Your task to perform on an android device: Add "asus rog" to the cart on amazon, then select checkout. Image 0: 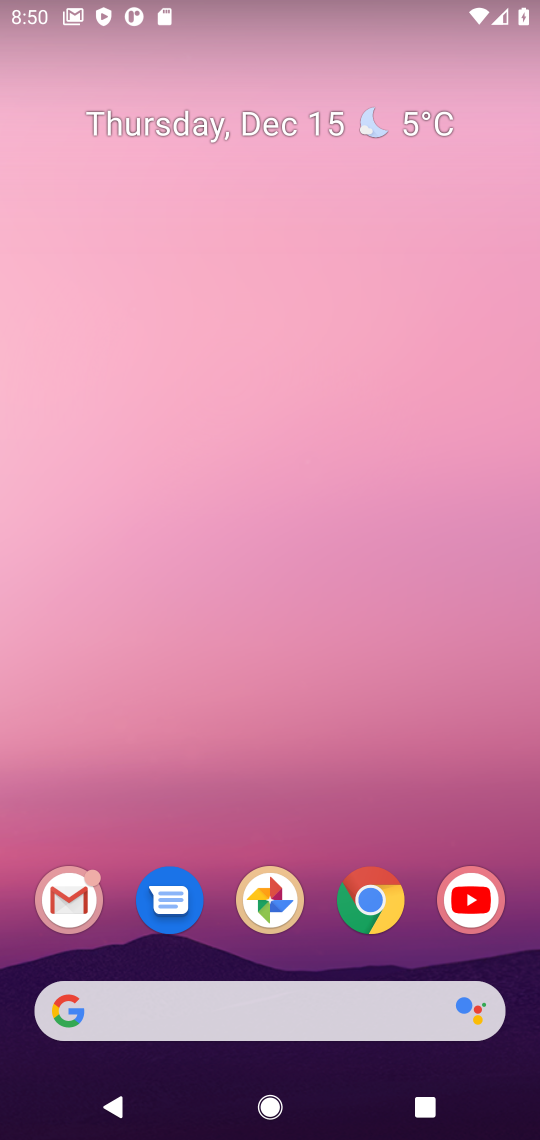
Step 0: click (363, 898)
Your task to perform on an android device: Add "asus rog" to the cart on amazon, then select checkout. Image 1: 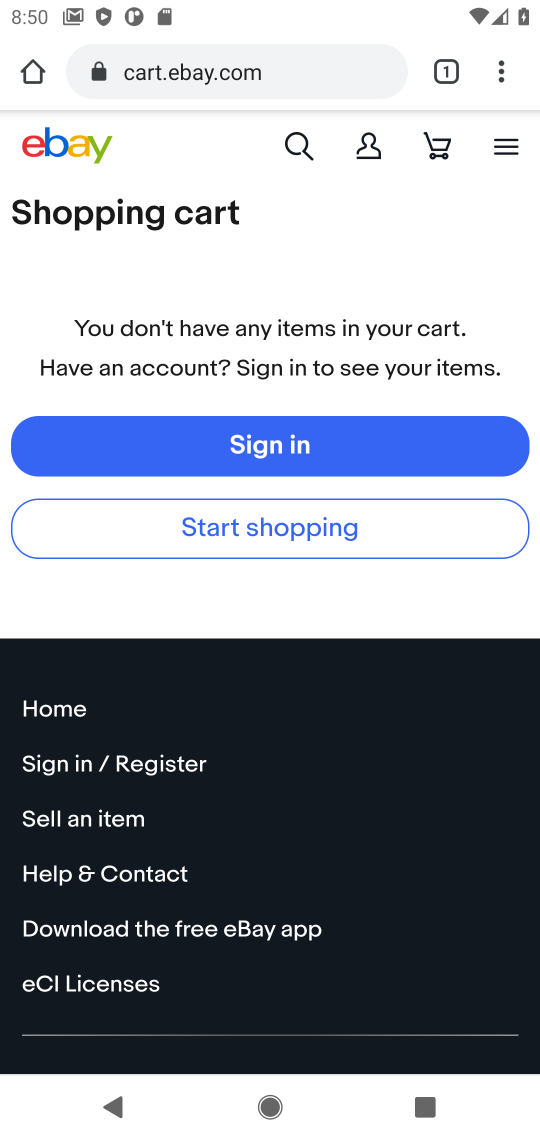
Step 1: click (244, 68)
Your task to perform on an android device: Add "asus rog" to the cart on amazon, then select checkout. Image 2: 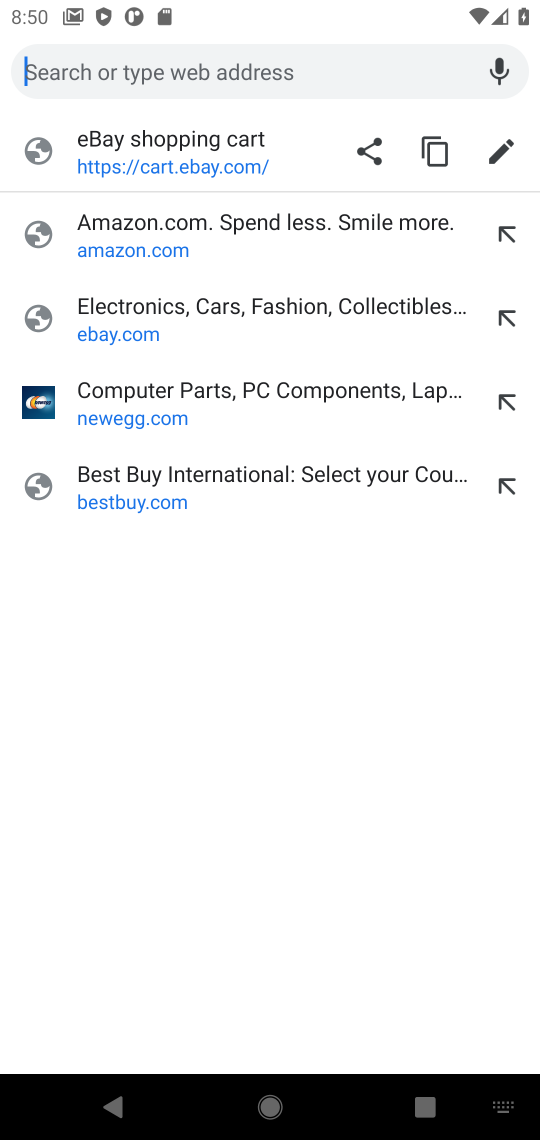
Step 2: type "amazon"
Your task to perform on an android device: Add "asus rog" to the cart on amazon, then select checkout. Image 3: 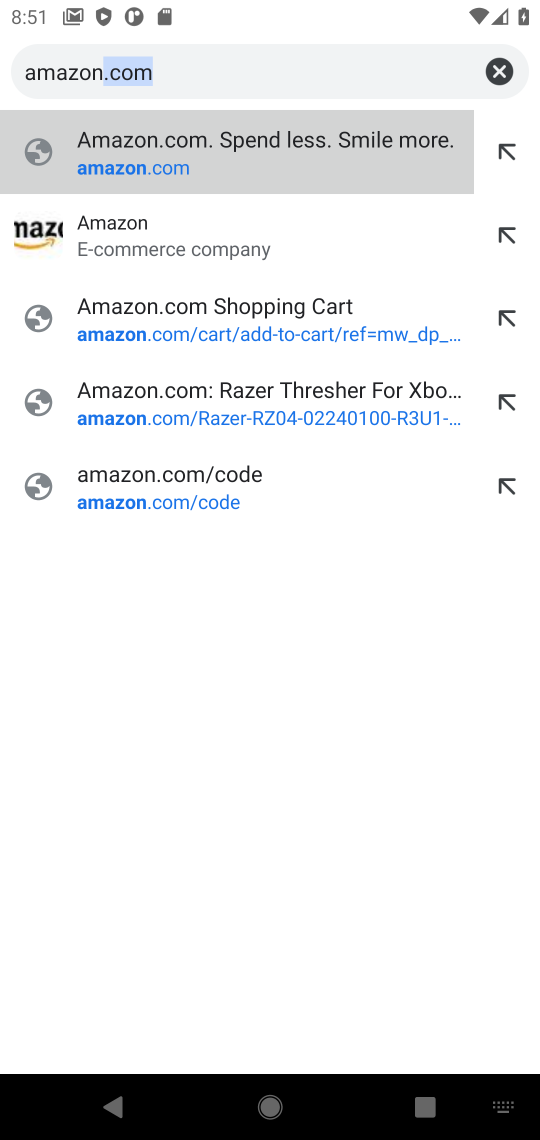
Step 3: click (166, 149)
Your task to perform on an android device: Add "asus rog" to the cart on amazon, then select checkout. Image 4: 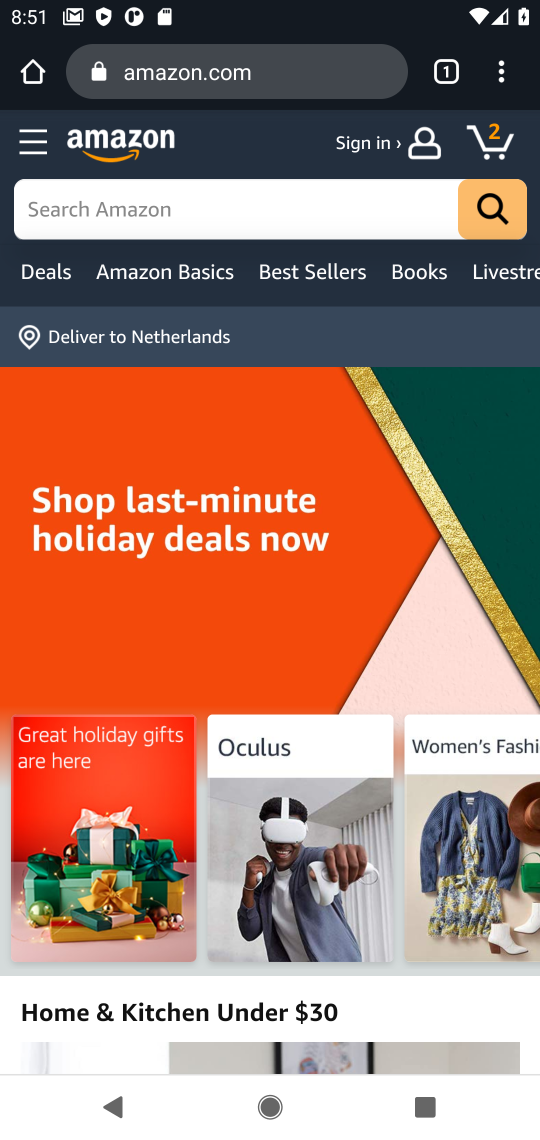
Step 4: click (151, 231)
Your task to perform on an android device: Add "asus rog" to the cart on amazon, then select checkout. Image 5: 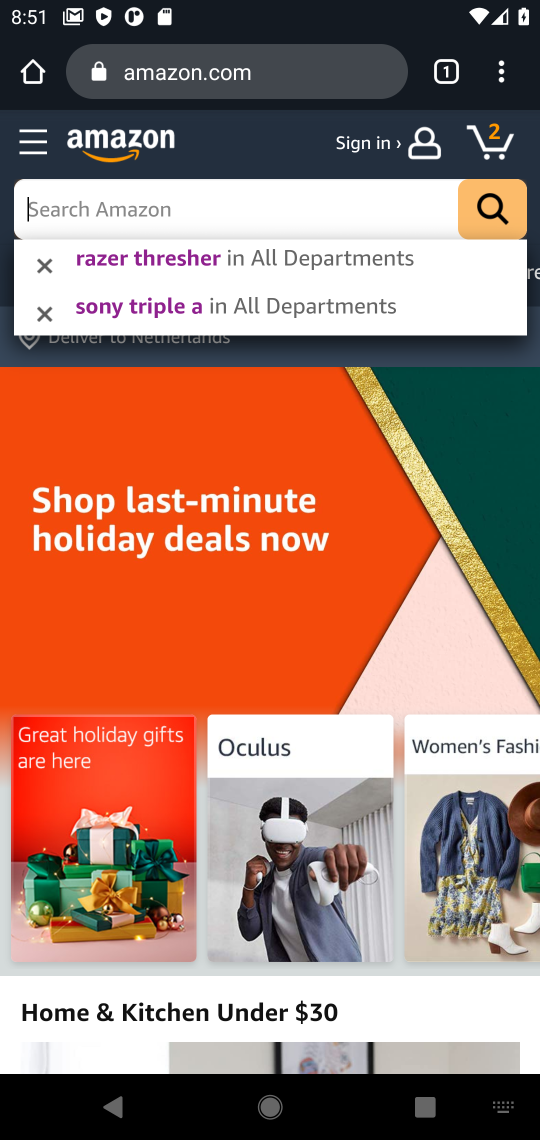
Step 5: type "asus rog"
Your task to perform on an android device: Add "asus rog" to the cart on amazon, then select checkout. Image 6: 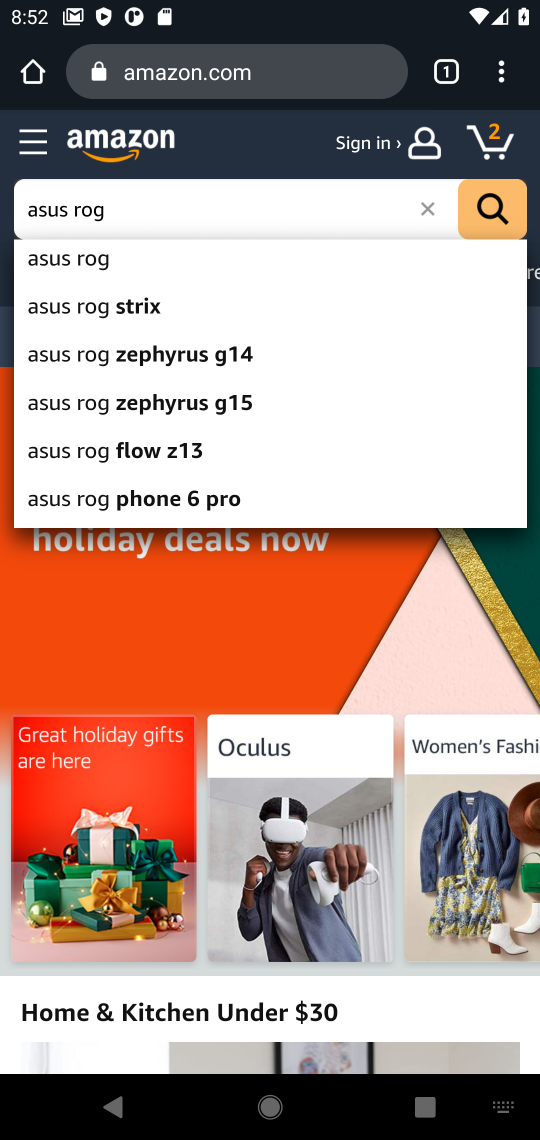
Step 6: press enter
Your task to perform on an android device: Add "asus rog" to the cart on amazon, then select checkout. Image 7: 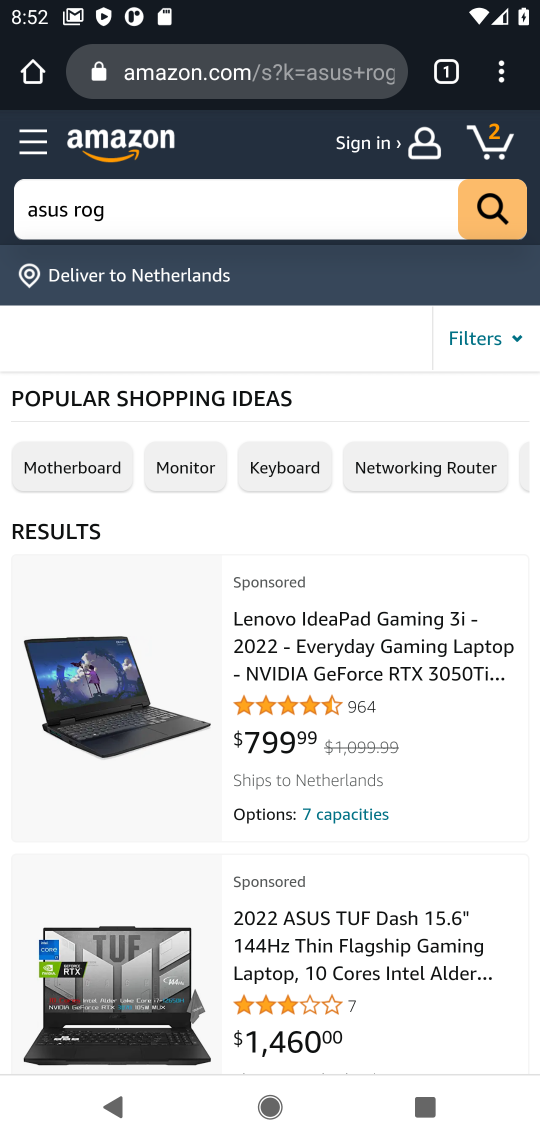
Step 7: drag from (297, 975) to (316, 546)
Your task to perform on an android device: Add "asus rog" to the cart on amazon, then select checkout. Image 8: 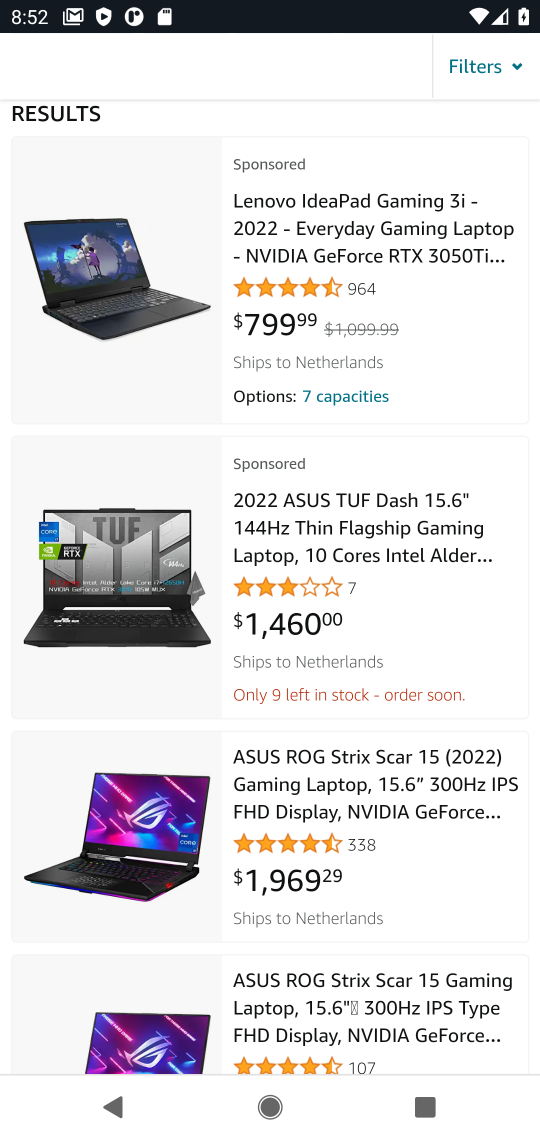
Step 8: click (305, 842)
Your task to perform on an android device: Add "asus rog" to the cart on amazon, then select checkout. Image 9: 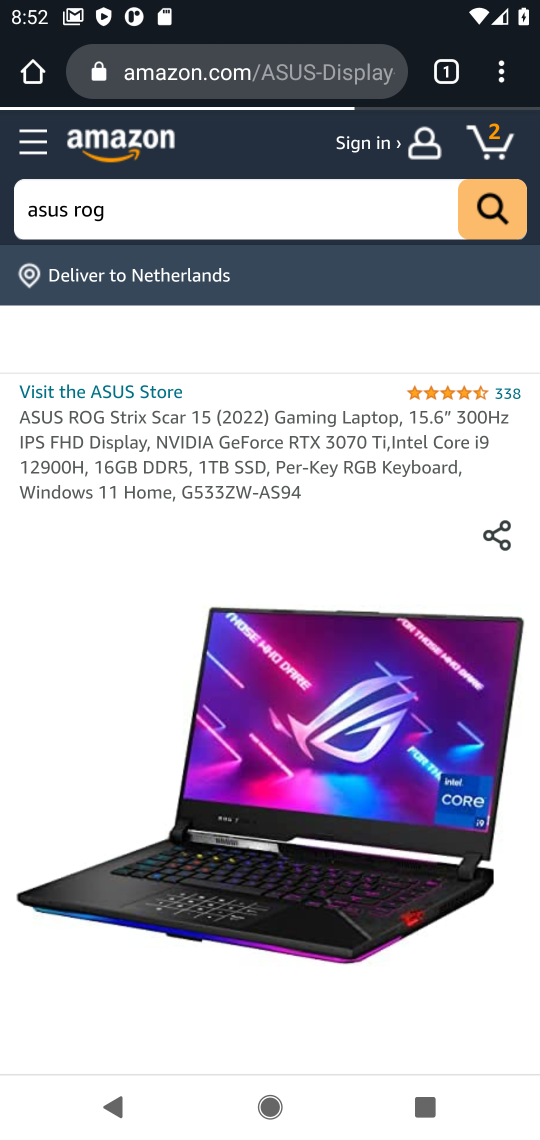
Step 9: drag from (437, 951) to (333, 511)
Your task to perform on an android device: Add "asus rog" to the cart on amazon, then select checkout. Image 10: 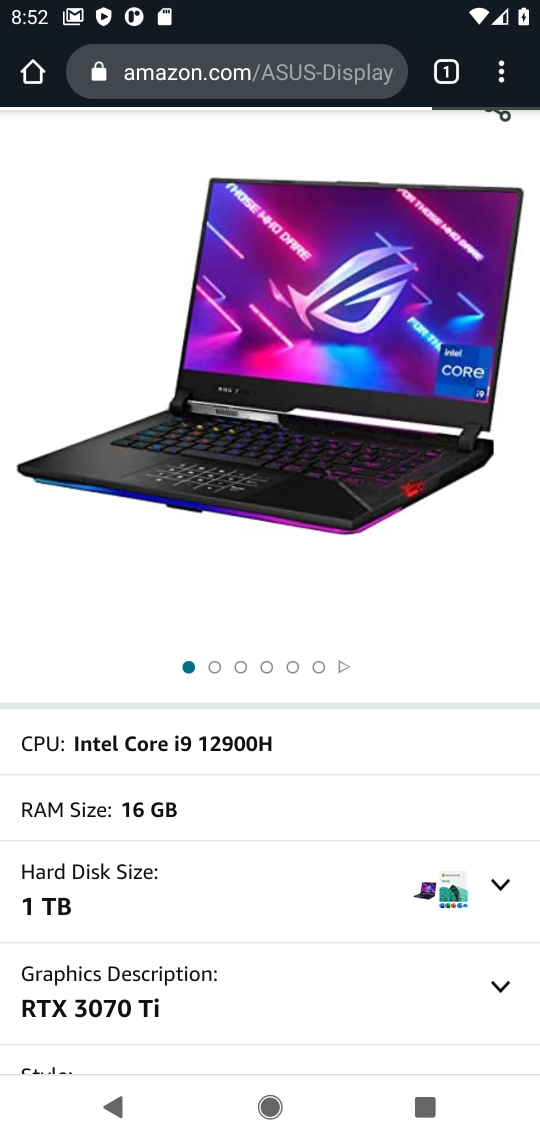
Step 10: drag from (321, 954) to (181, 296)
Your task to perform on an android device: Add "asus rog" to the cart on amazon, then select checkout. Image 11: 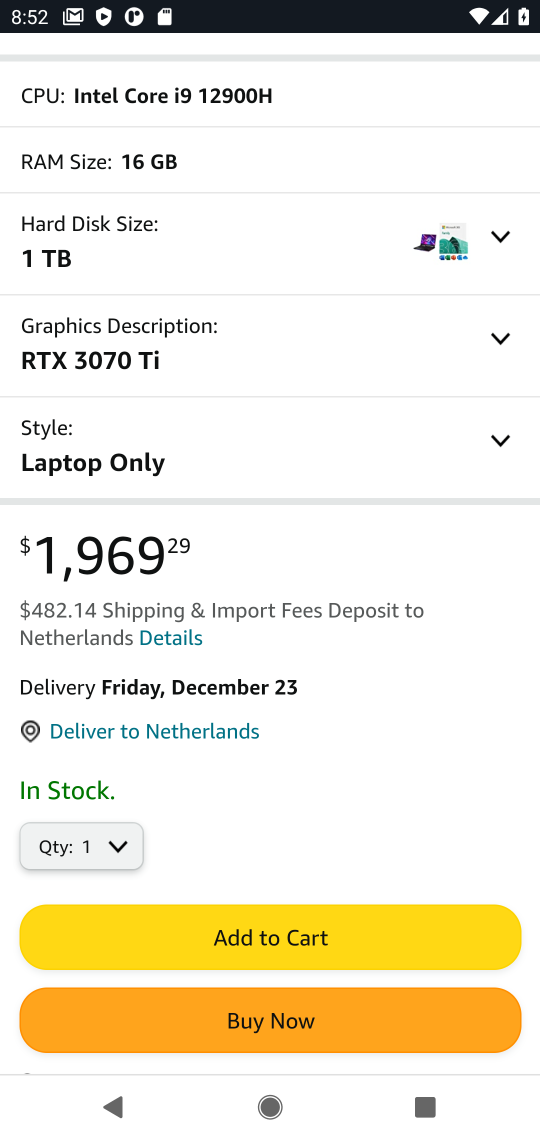
Step 11: click (262, 945)
Your task to perform on an android device: Add "asus rog" to the cart on amazon, then select checkout. Image 12: 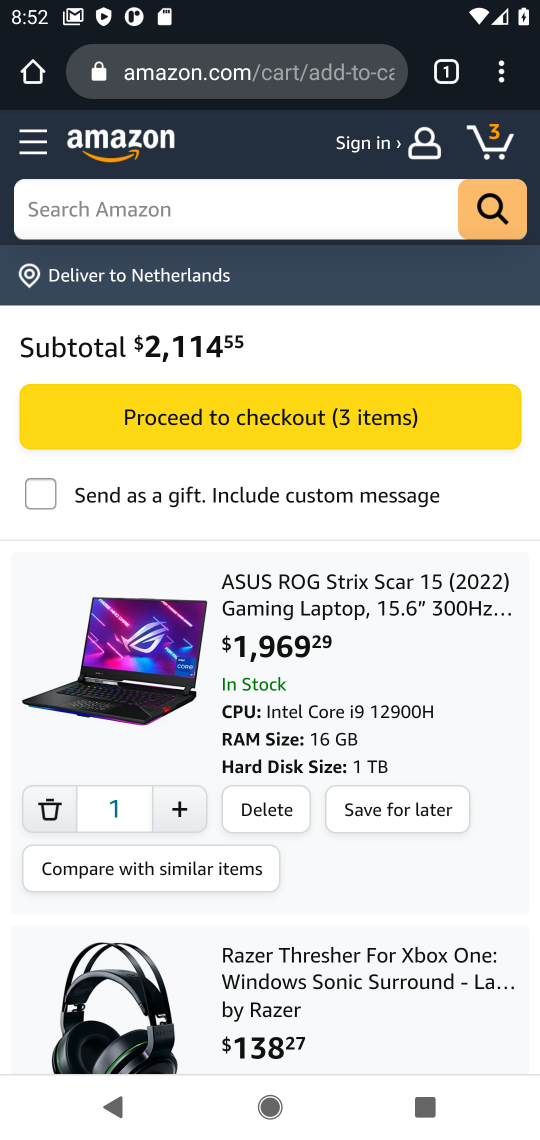
Step 12: click (292, 418)
Your task to perform on an android device: Add "asus rog" to the cart on amazon, then select checkout. Image 13: 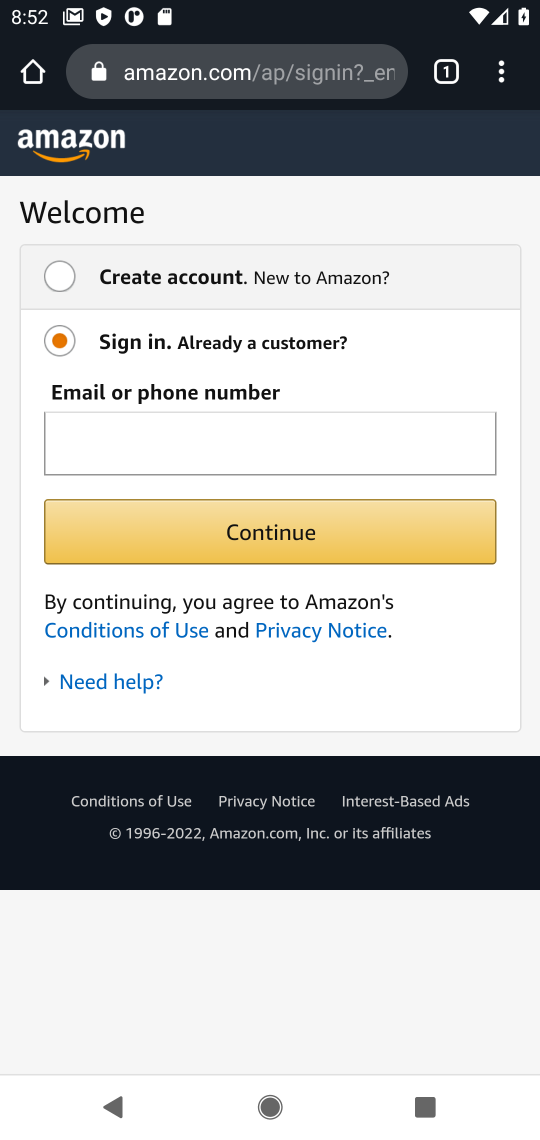
Step 13: task complete